Your task to perform on an android device: toggle notifications settings in the gmail app Image 0: 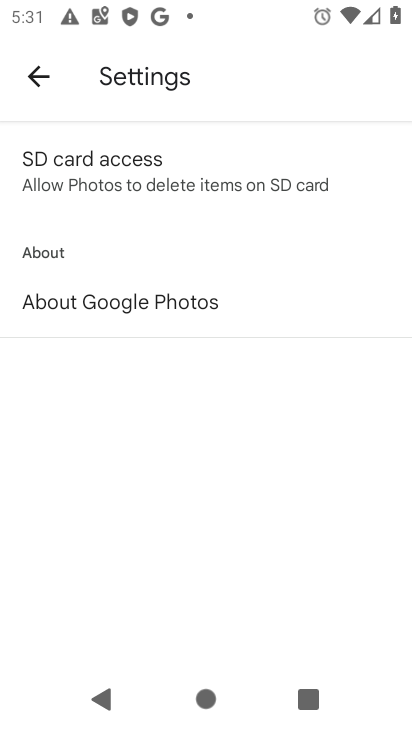
Step 0: press home button
Your task to perform on an android device: toggle notifications settings in the gmail app Image 1: 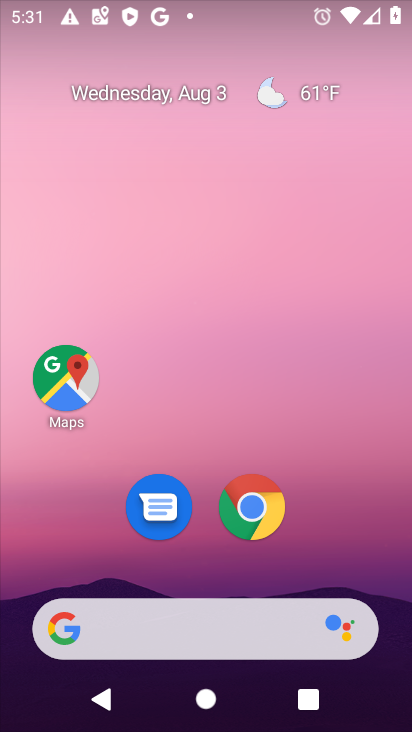
Step 1: drag from (333, 533) to (320, 68)
Your task to perform on an android device: toggle notifications settings in the gmail app Image 2: 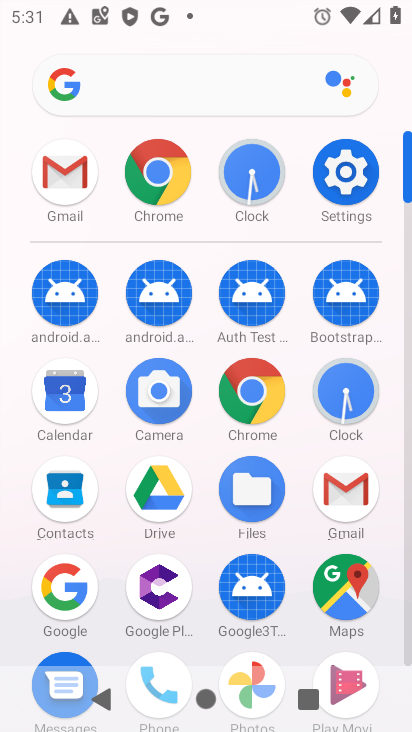
Step 2: click (345, 504)
Your task to perform on an android device: toggle notifications settings in the gmail app Image 3: 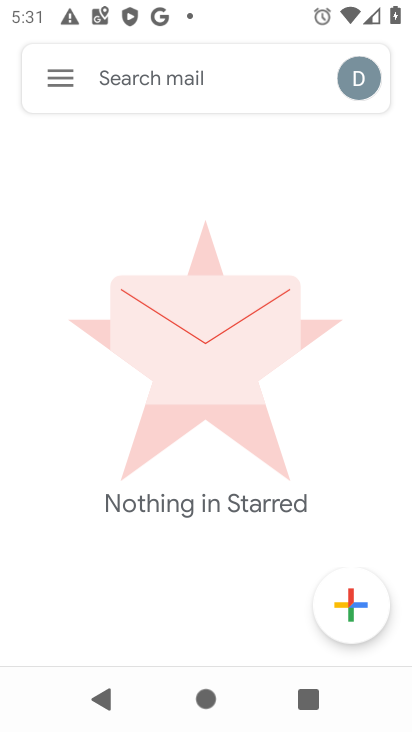
Step 3: click (49, 76)
Your task to perform on an android device: toggle notifications settings in the gmail app Image 4: 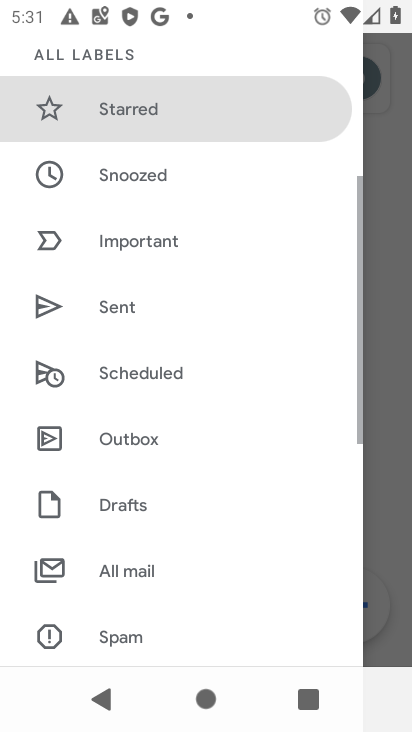
Step 4: drag from (187, 615) to (239, 35)
Your task to perform on an android device: toggle notifications settings in the gmail app Image 5: 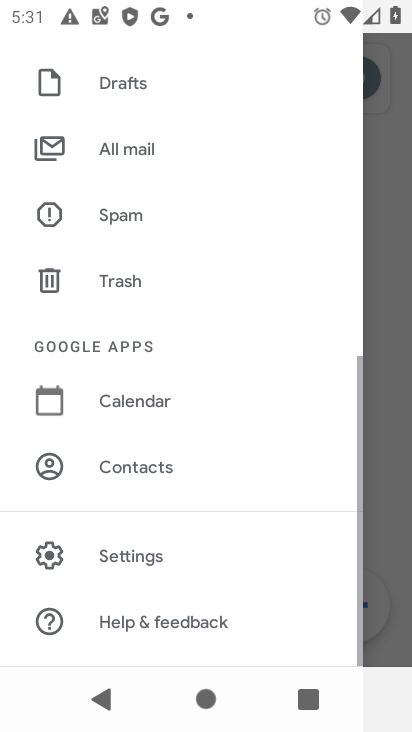
Step 5: click (160, 559)
Your task to perform on an android device: toggle notifications settings in the gmail app Image 6: 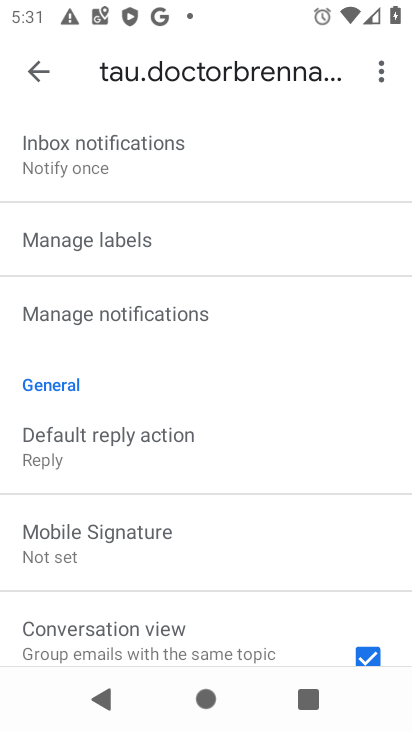
Step 6: click (162, 302)
Your task to perform on an android device: toggle notifications settings in the gmail app Image 7: 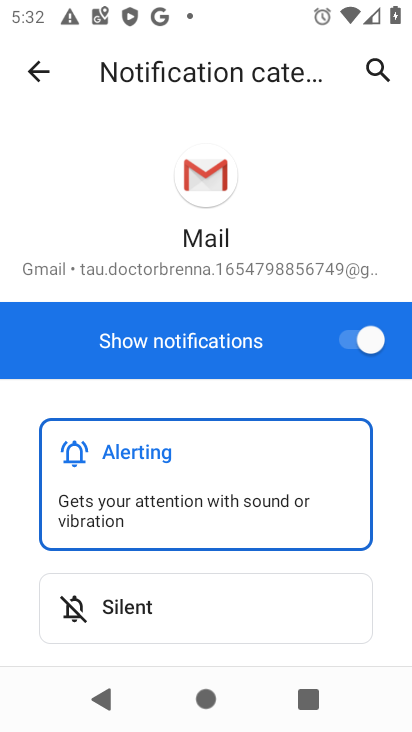
Step 7: click (381, 343)
Your task to perform on an android device: toggle notifications settings in the gmail app Image 8: 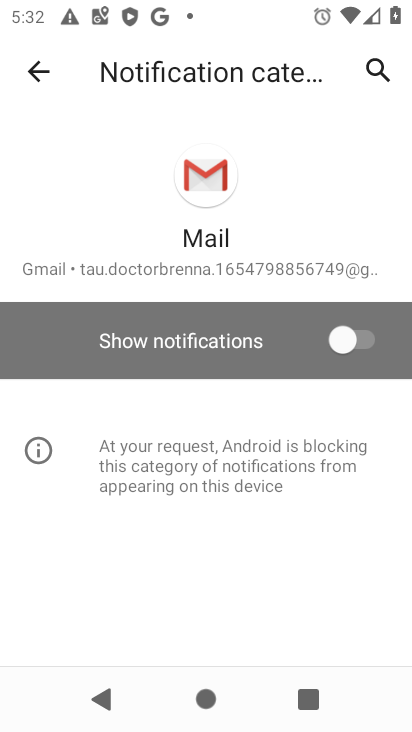
Step 8: task complete